Your task to perform on an android device: refresh tabs in the chrome app Image 0: 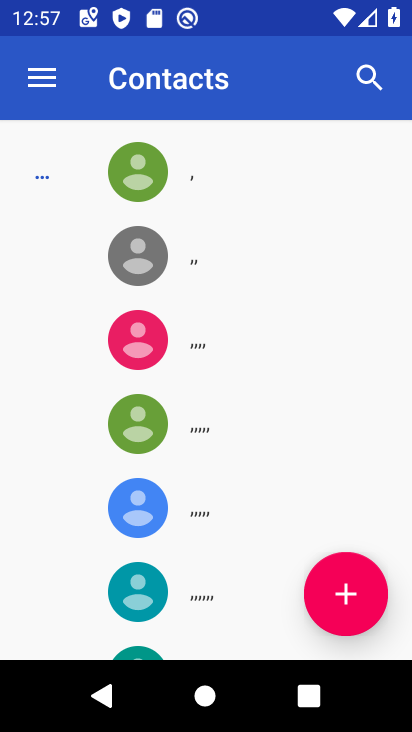
Step 0: press home button
Your task to perform on an android device: refresh tabs in the chrome app Image 1: 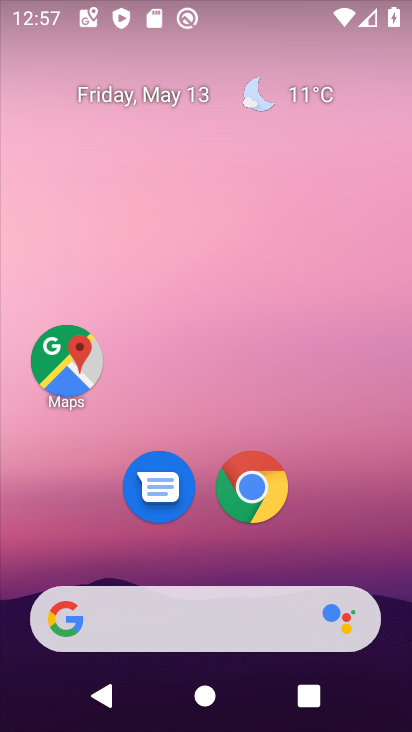
Step 1: click (261, 499)
Your task to perform on an android device: refresh tabs in the chrome app Image 2: 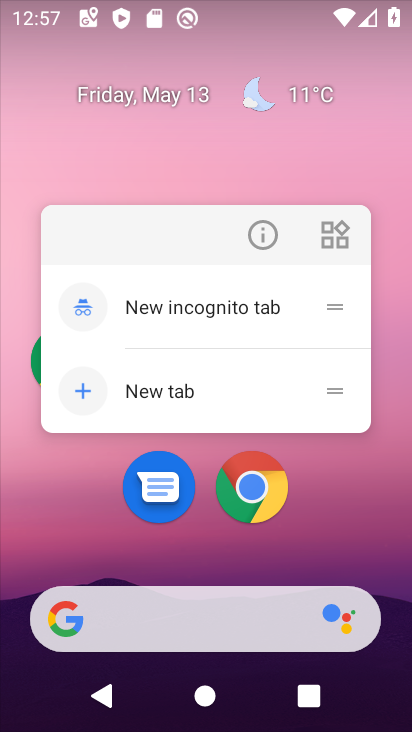
Step 2: click (270, 504)
Your task to perform on an android device: refresh tabs in the chrome app Image 3: 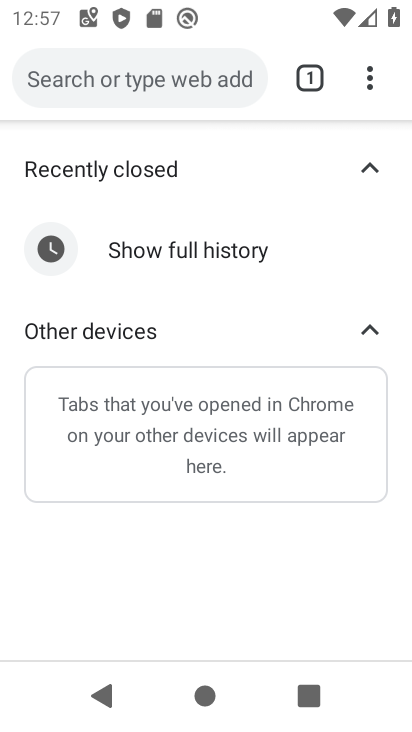
Step 3: click (373, 82)
Your task to perform on an android device: refresh tabs in the chrome app Image 4: 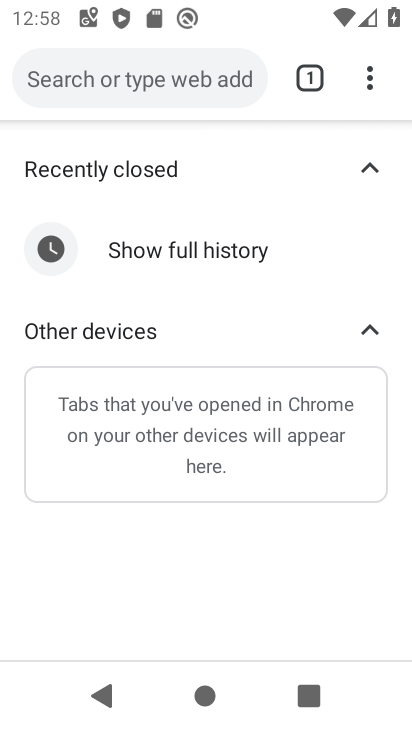
Step 4: click (364, 94)
Your task to perform on an android device: refresh tabs in the chrome app Image 5: 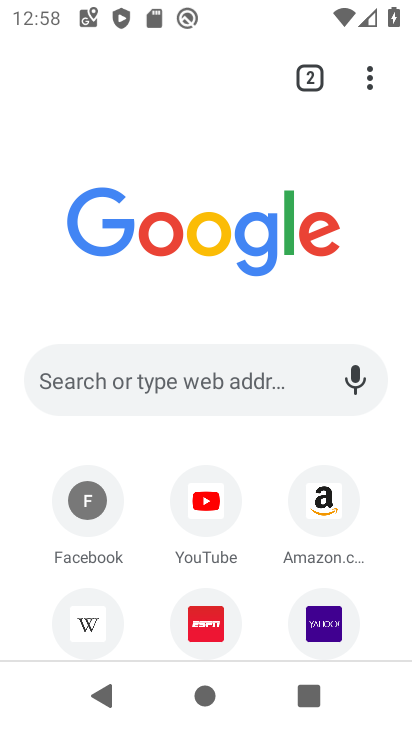
Step 5: click (368, 94)
Your task to perform on an android device: refresh tabs in the chrome app Image 6: 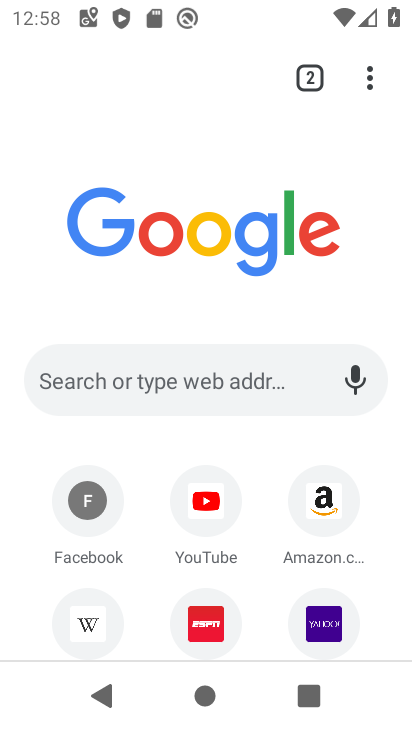
Step 6: task complete